Your task to perform on an android device: open sync settings in chrome Image 0: 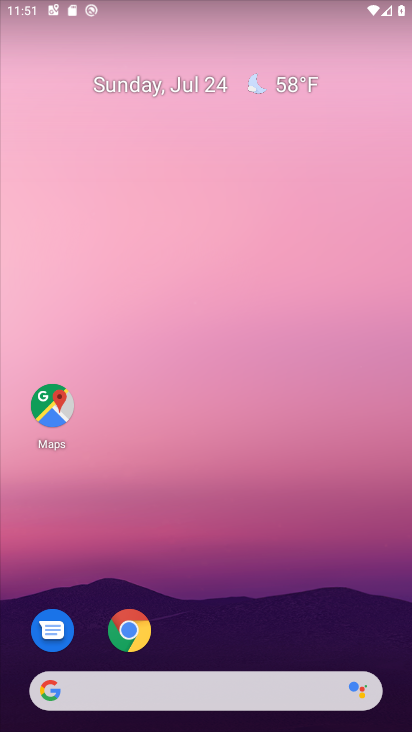
Step 0: click (129, 627)
Your task to perform on an android device: open sync settings in chrome Image 1: 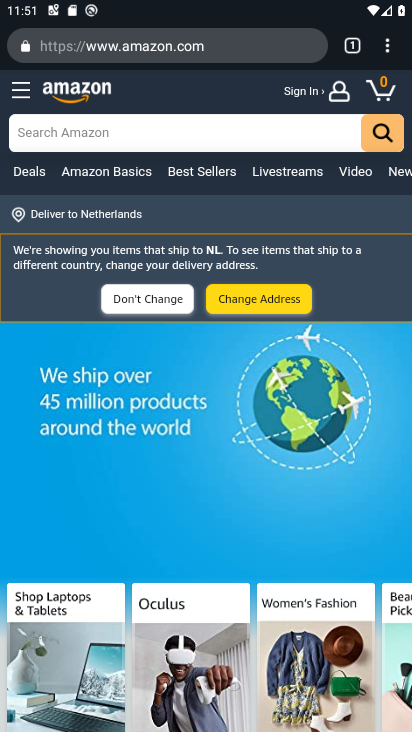
Step 1: click (387, 47)
Your task to perform on an android device: open sync settings in chrome Image 2: 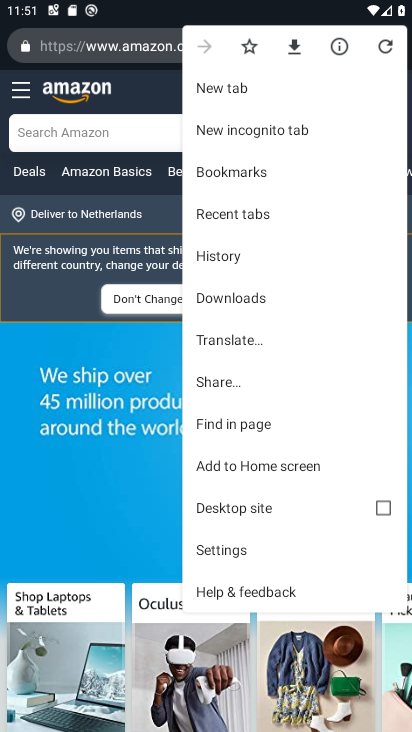
Step 2: click (203, 551)
Your task to perform on an android device: open sync settings in chrome Image 3: 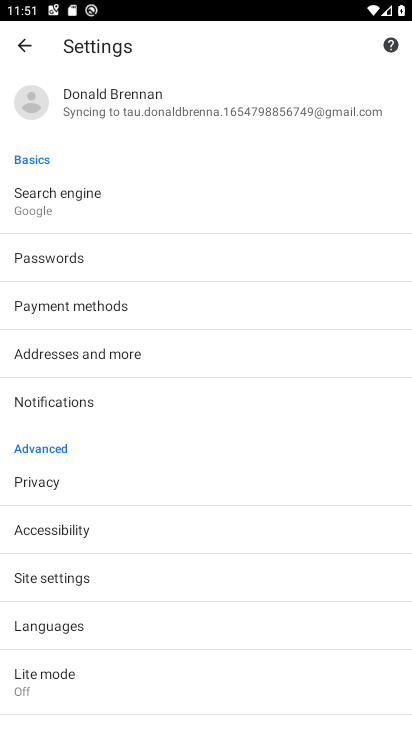
Step 3: click (202, 104)
Your task to perform on an android device: open sync settings in chrome Image 4: 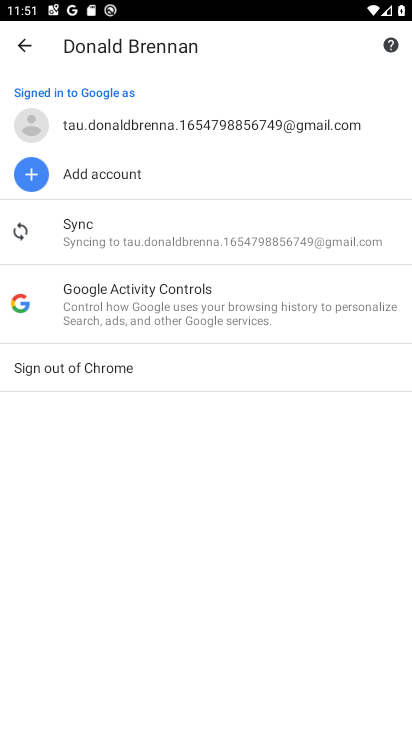
Step 4: task complete